Your task to perform on an android device: turn off airplane mode Image 0: 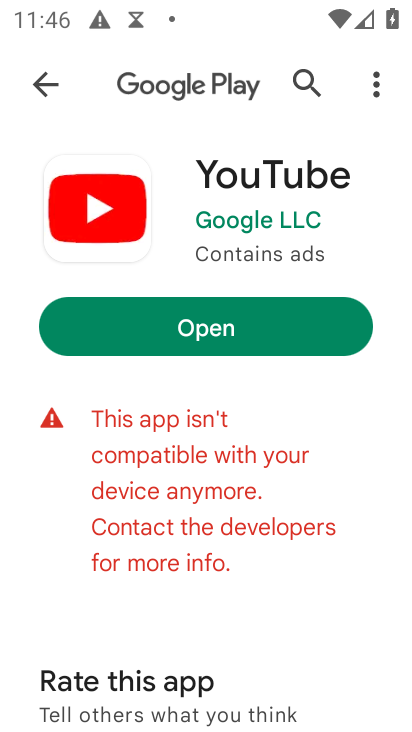
Step 0: press home button
Your task to perform on an android device: turn off airplane mode Image 1: 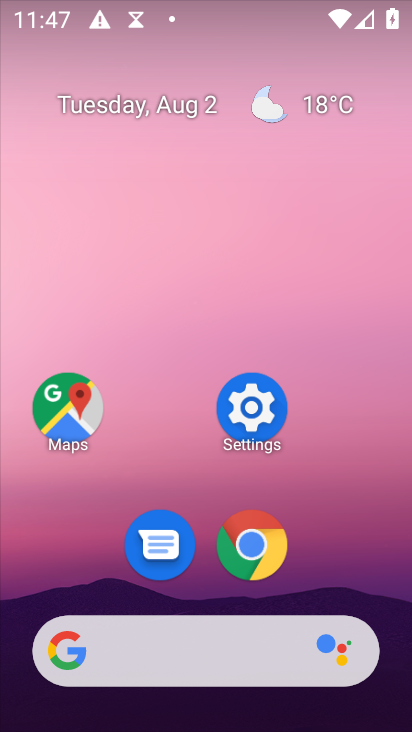
Step 1: click (256, 402)
Your task to perform on an android device: turn off airplane mode Image 2: 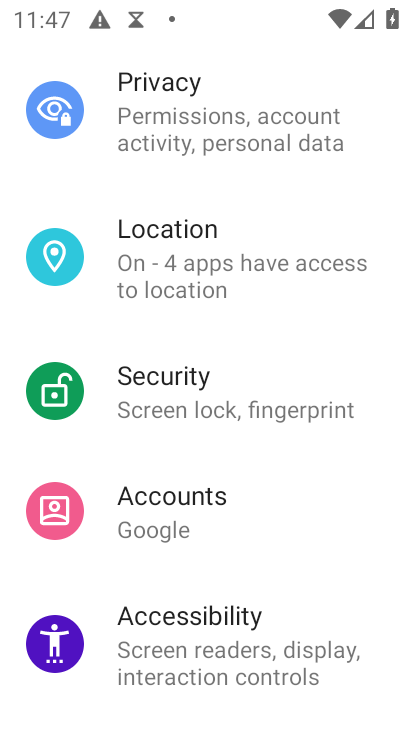
Step 2: drag from (285, 90) to (286, 649)
Your task to perform on an android device: turn off airplane mode Image 3: 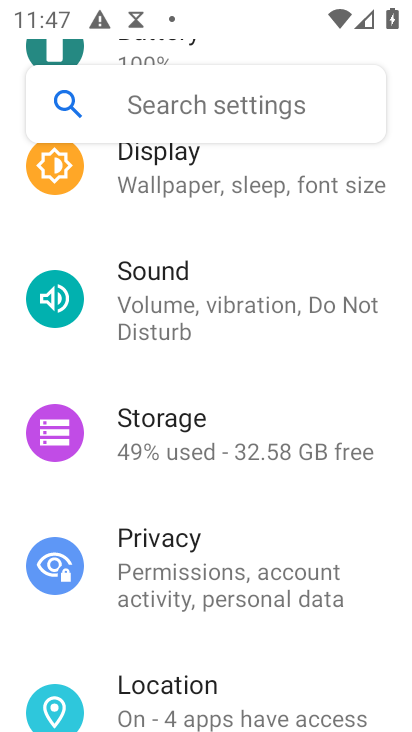
Step 3: drag from (266, 227) to (274, 629)
Your task to perform on an android device: turn off airplane mode Image 4: 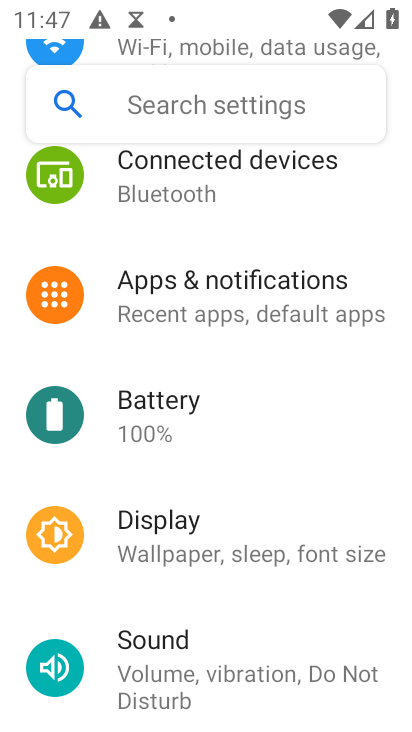
Step 4: drag from (273, 211) to (314, 651)
Your task to perform on an android device: turn off airplane mode Image 5: 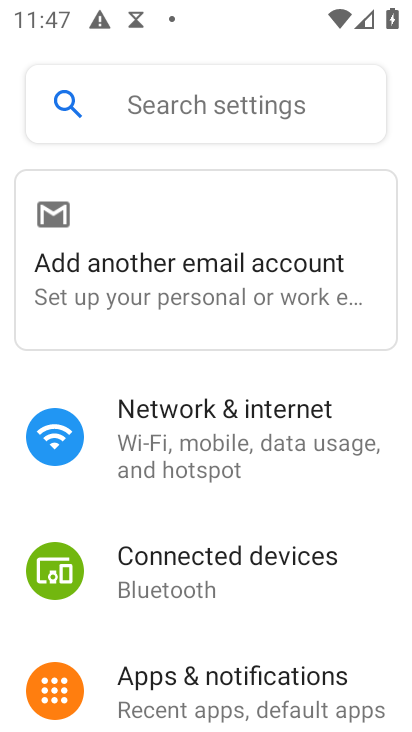
Step 5: click (228, 414)
Your task to perform on an android device: turn off airplane mode Image 6: 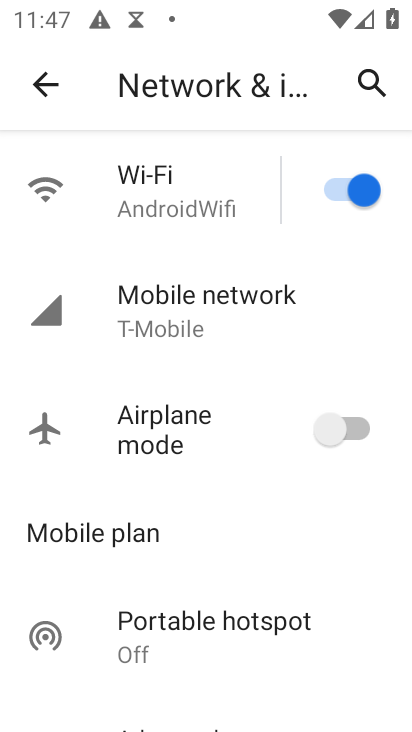
Step 6: task complete